Your task to perform on an android device: turn smart compose on in the gmail app Image 0: 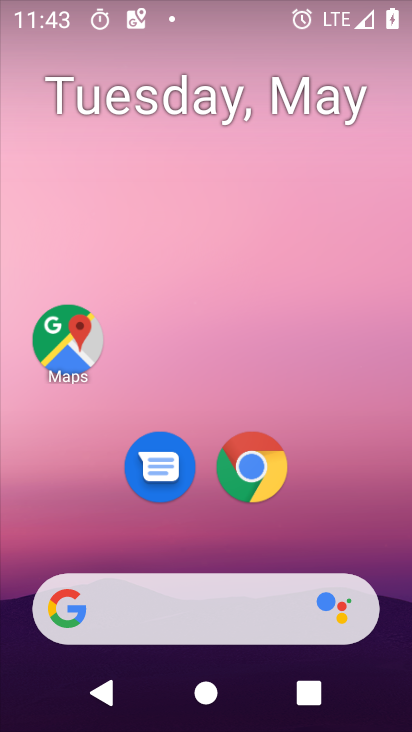
Step 0: drag from (339, 496) to (245, 40)
Your task to perform on an android device: turn smart compose on in the gmail app Image 1: 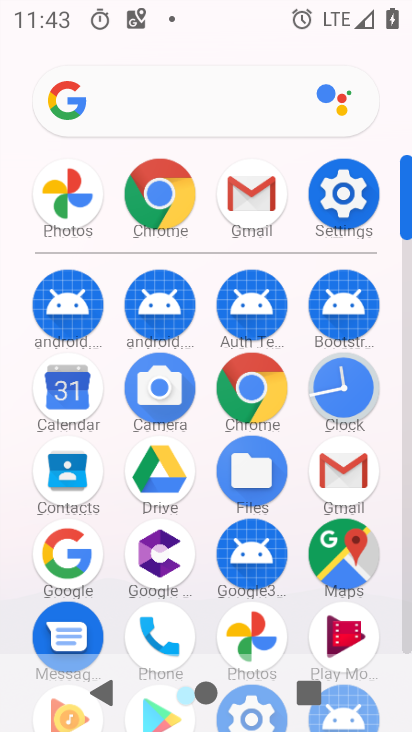
Step 1: drag from (7, 589) to (27, 226)
Your task to perform on an android device: turn smart compose on in the gmail app Image 2: 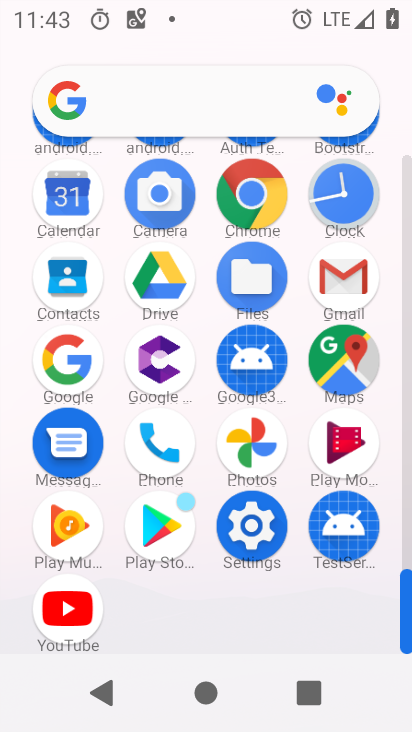
Step 2: click (346, 273)
Your task to perform on an android device: turn smart compose on in the gmail app Image 3: 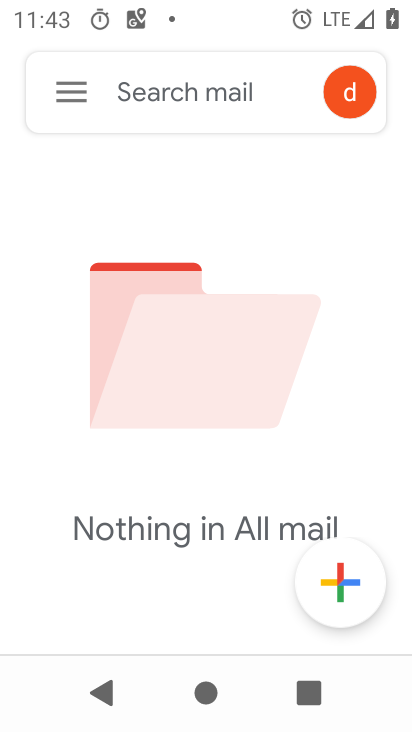
Step 3: click (63, 90)
Your task to perform on an android device: turn smart compose on in the gmail app Image 4: 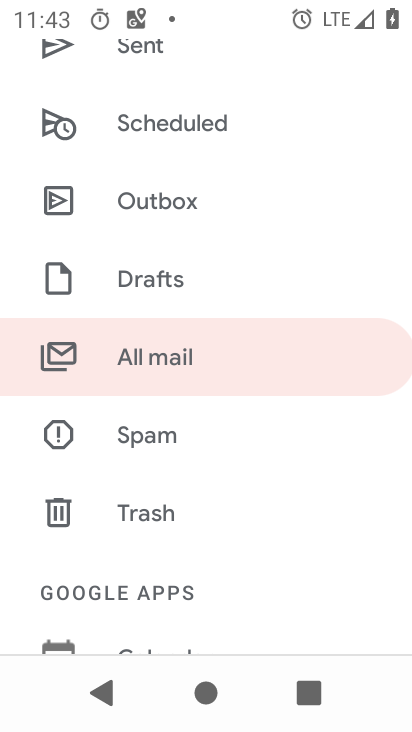
Step 4: drag from (259, 565) to (264, 76)
Your task to perform on an android device: turn smart compose on in the gmail app Image 5: 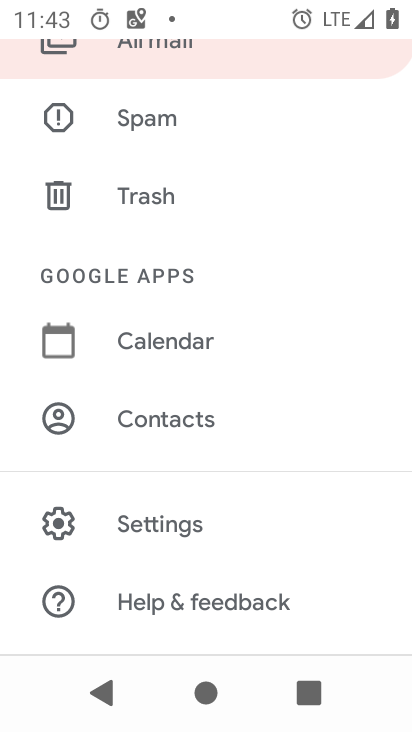
Step 5: click (188, 515)
Your task to perform on an android device: turn smart compose on in the gmail app Image 6: 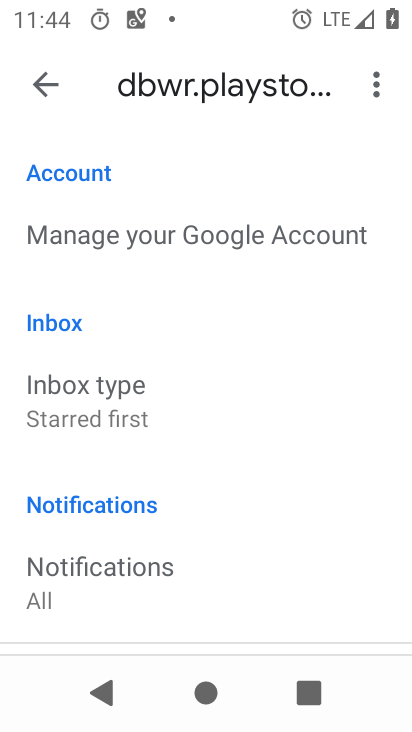
Step 6: task complete